Your task to perform on an android device: What's the weather like in Los Angeles? Image 0: 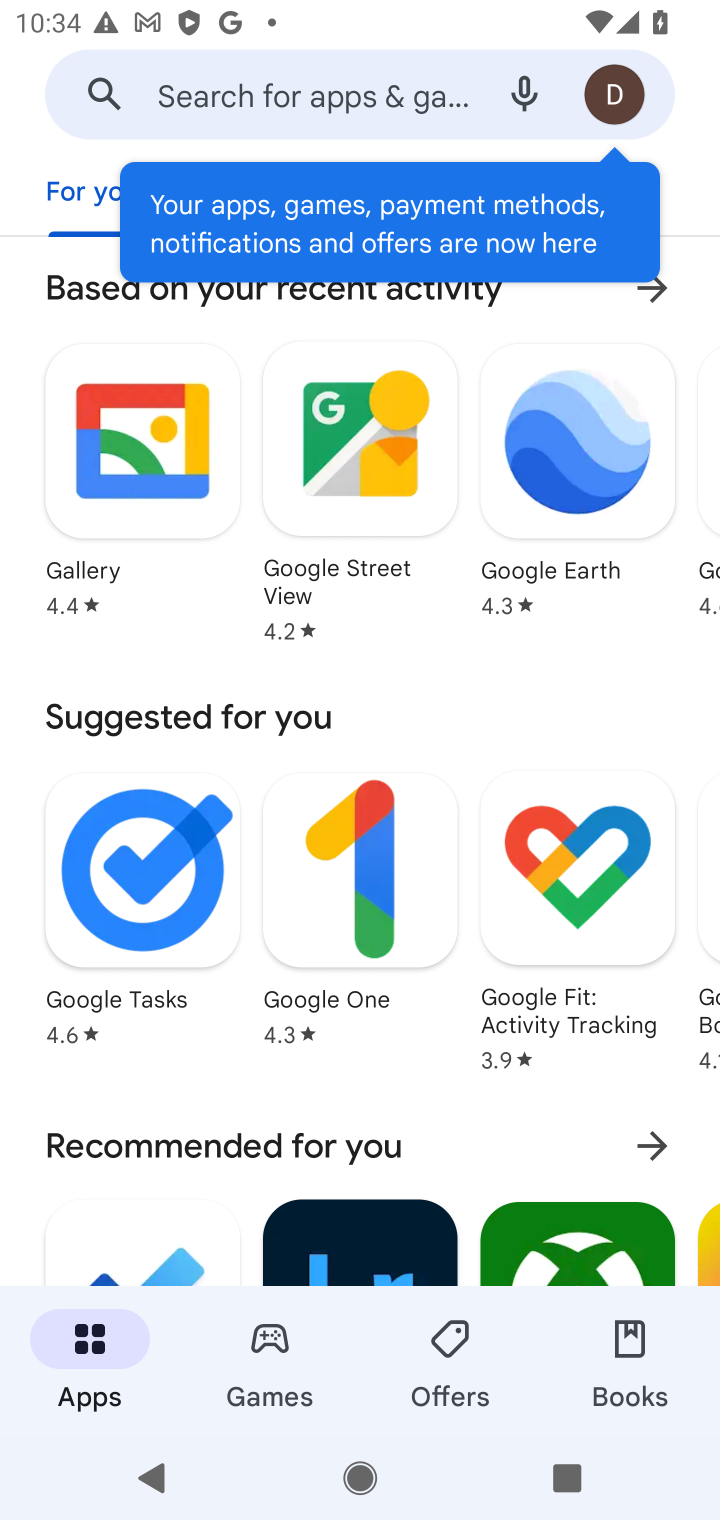
Step 0: press home button
Your task to perform on an android device: What's the weather like in Los Angeles? Image 1: 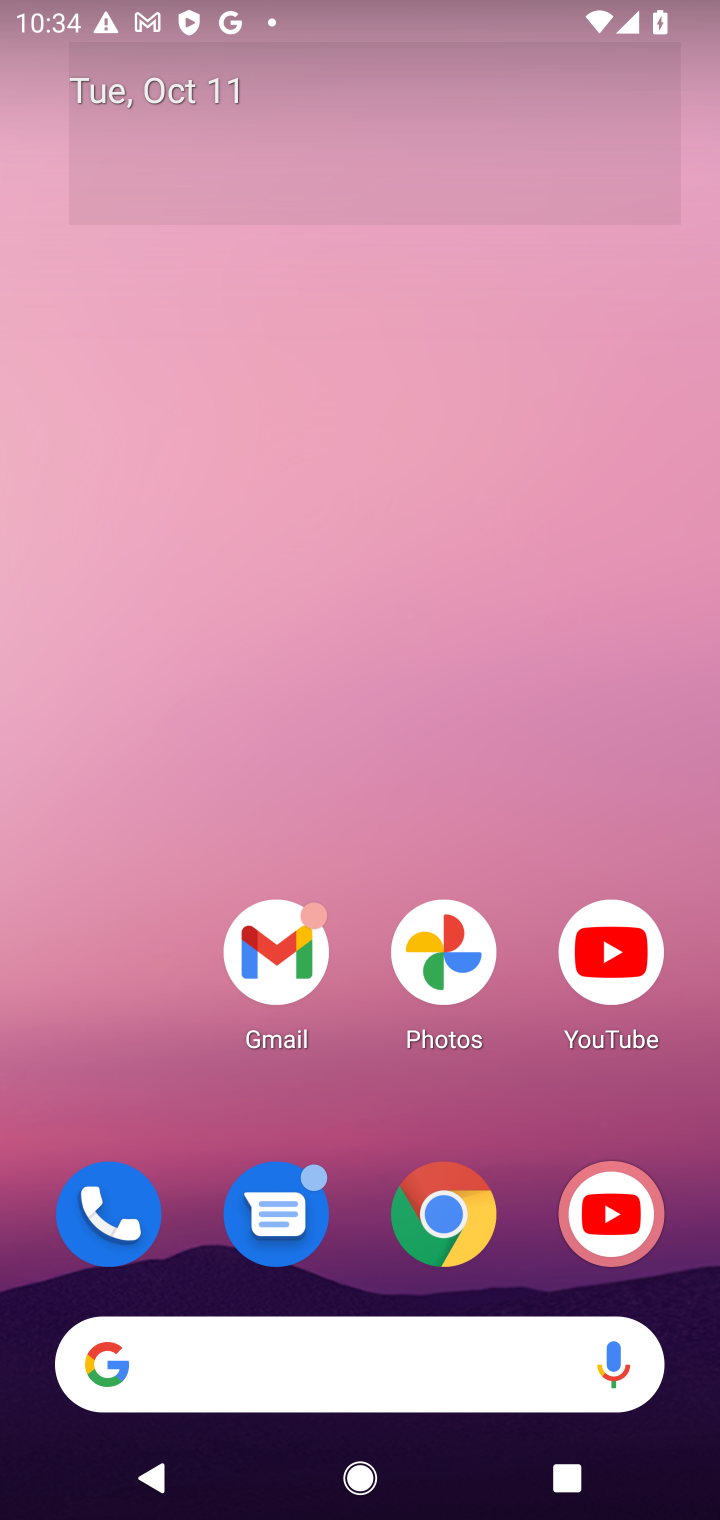
Step 1: drag from (400, 583) to (404, 77)
Your task to perform on an android device: What's the weather like in Los Angeles? Image 2: 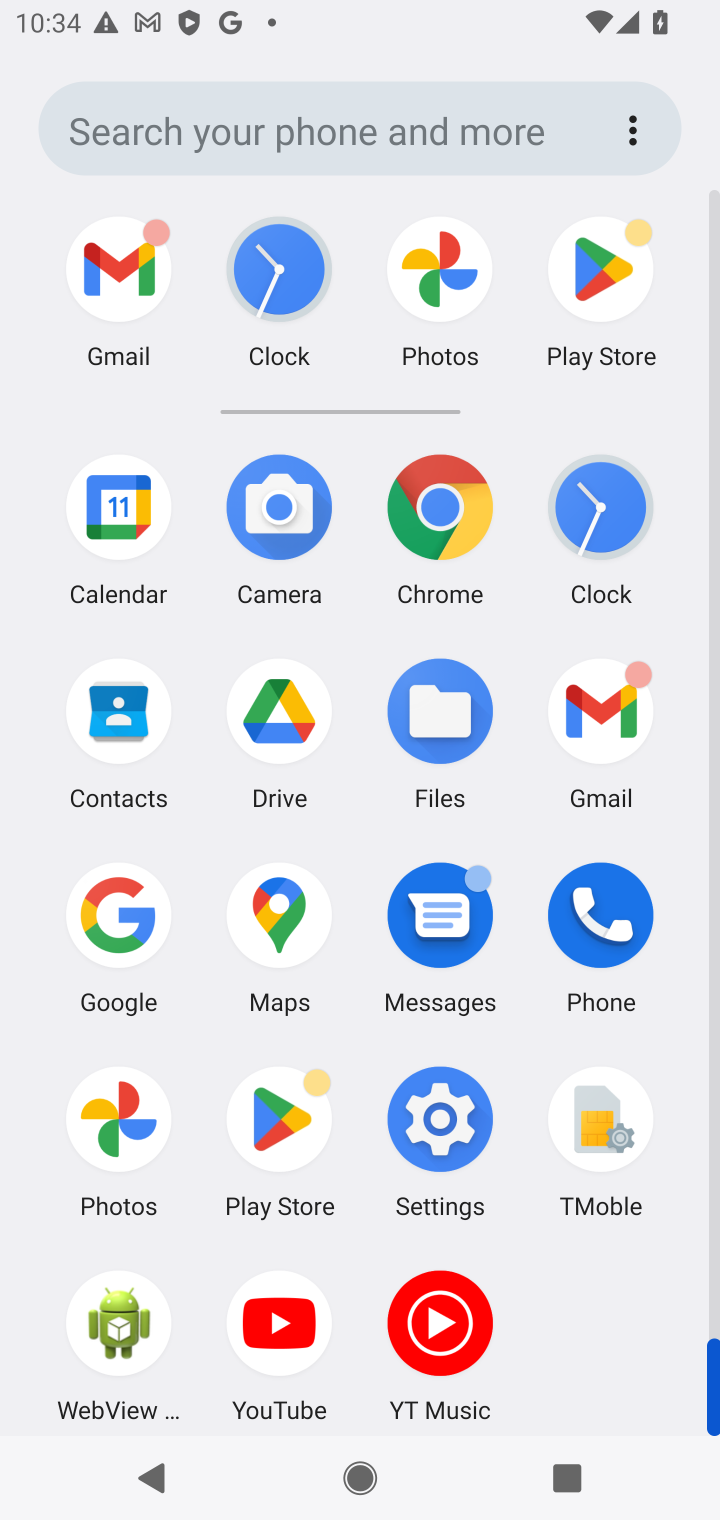
Step 2: click (461, 502)
Your task to perform on an android device: What's the weather like in Los Angeles? Image 3: 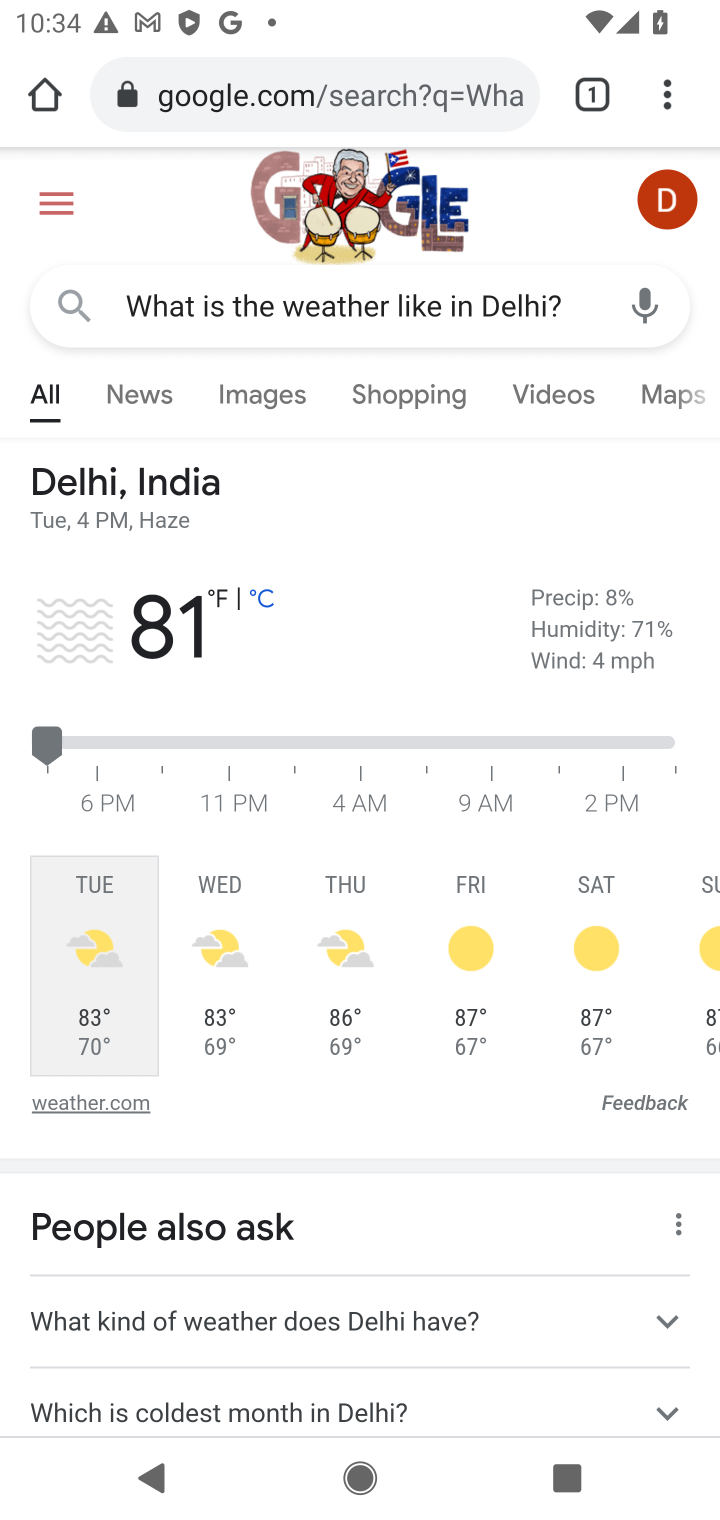
Step 3: click (358, 308)
Your task to perform on an android device: What's the weather like in Los Angeles? Image 4: 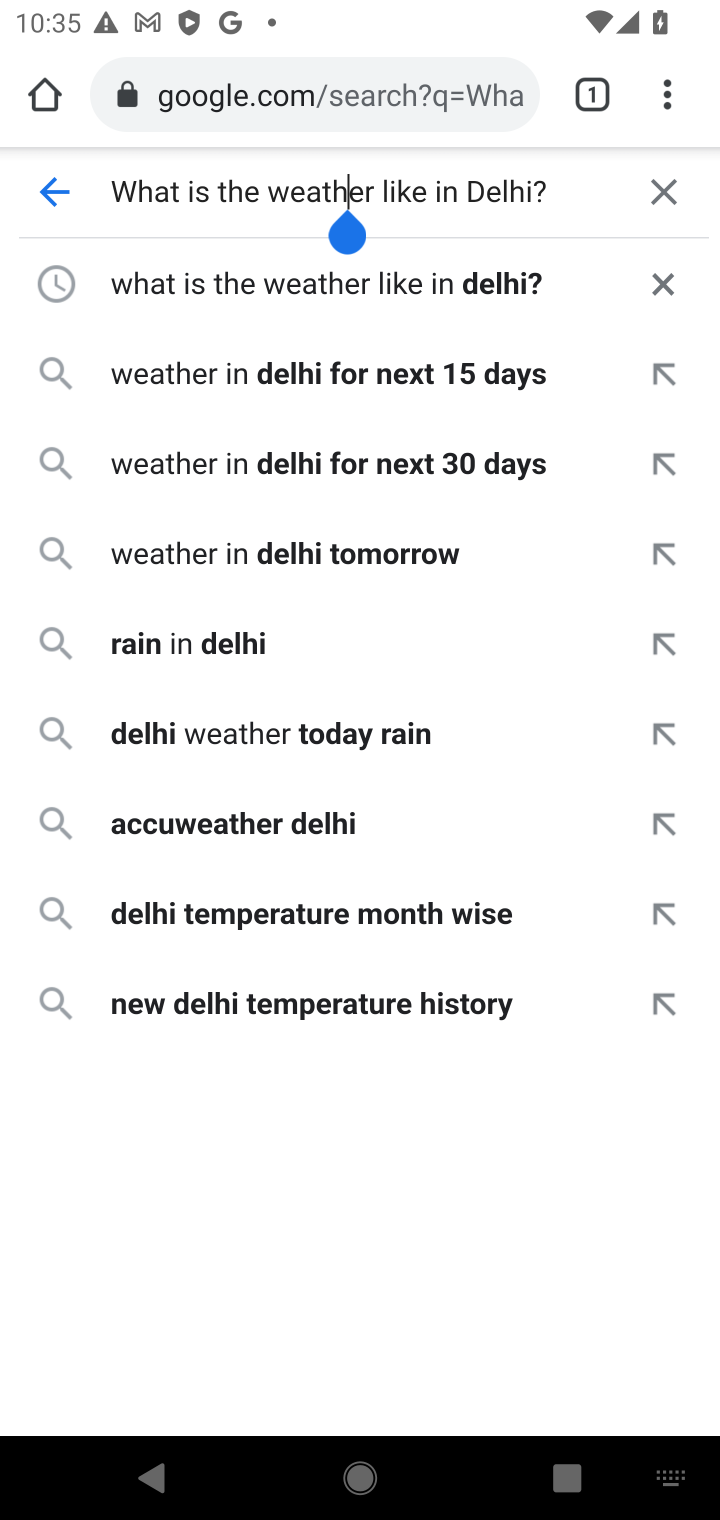
Step 4: type "What's the weather like in Los Angeles?"
Your task to perform on an android device: What's the weather like in Los Angeles? Image 5: 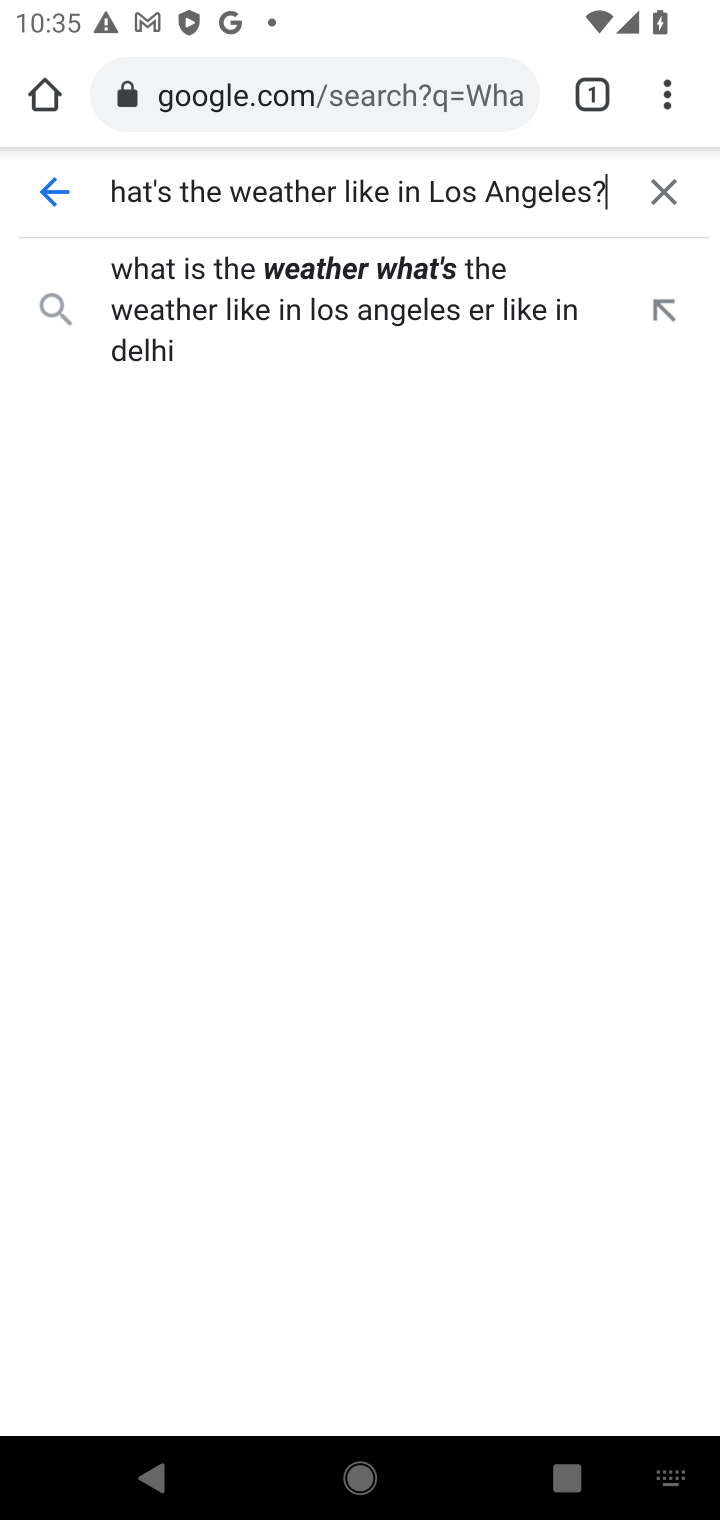
Step 5: press enter
Your task to perform on an android device: What's the weather like in Los Angeles? Image 6: 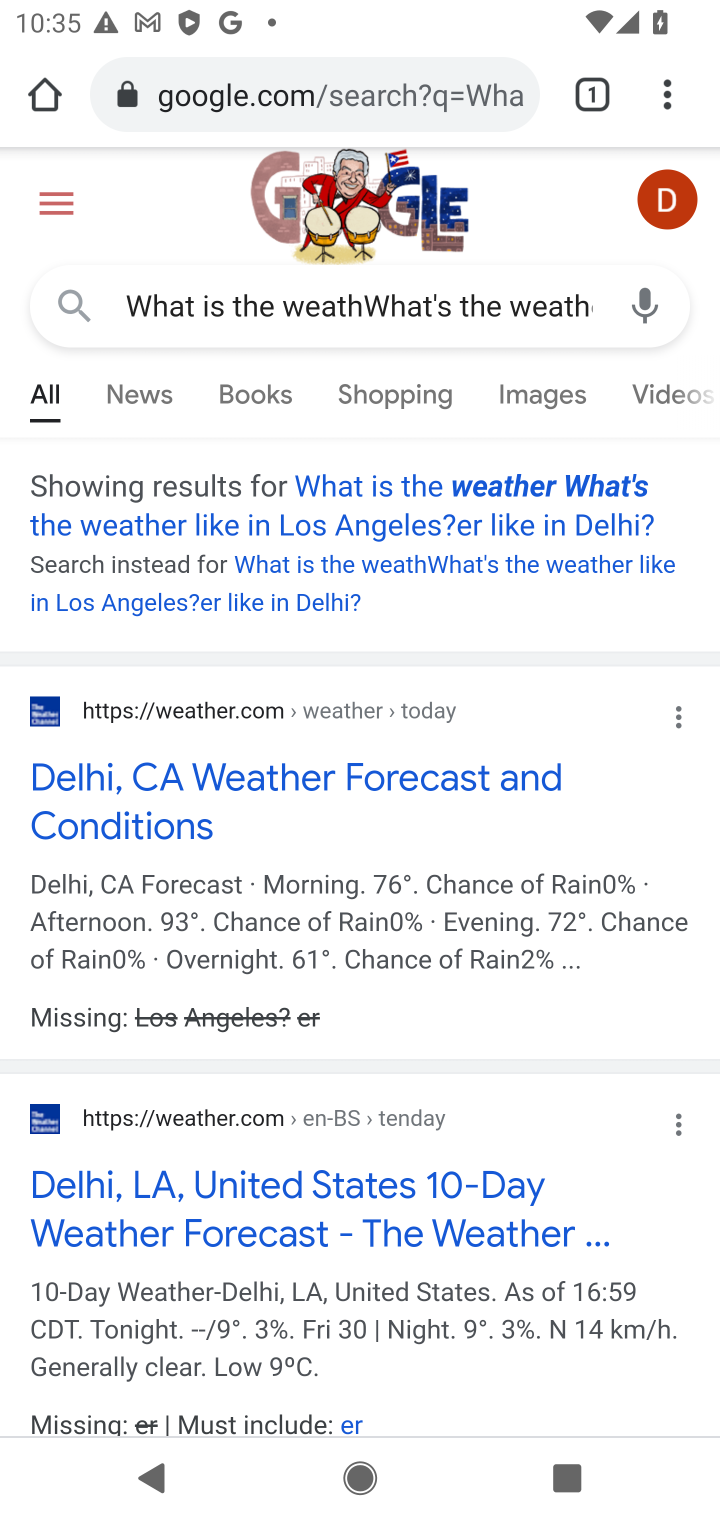
Step 6: click (416, 766)
Your task to perform on an android device: What's the weather like in Los Angeles? Image 7: 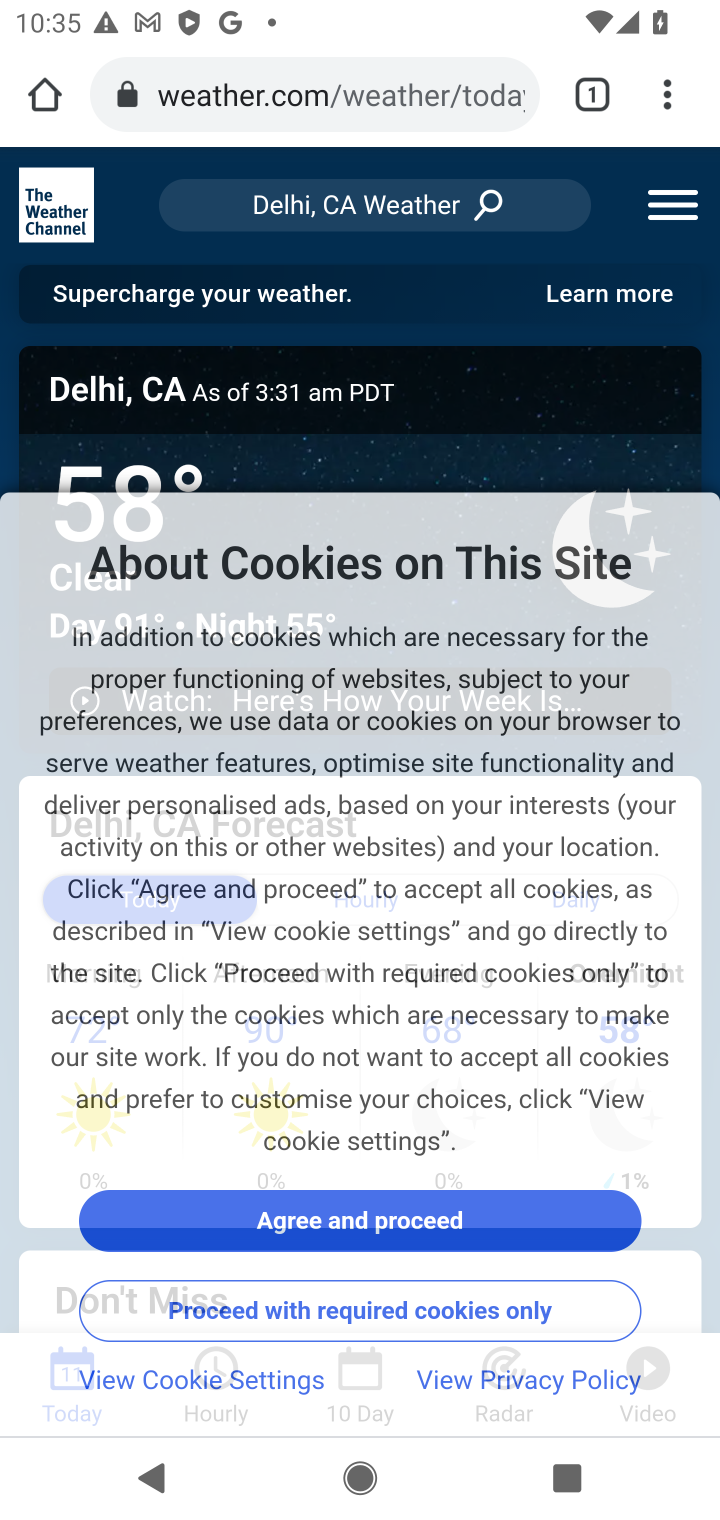
Step 7: task complete